Your task to perform on an android device: Open internet settings Image 0: 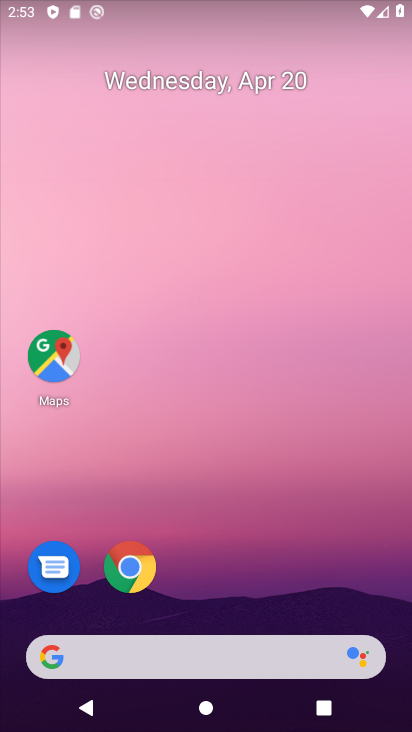
Step 0: drag from (268, 338) to (362, 2)
Your task to perform on an android device: Open internet settings Image 1: 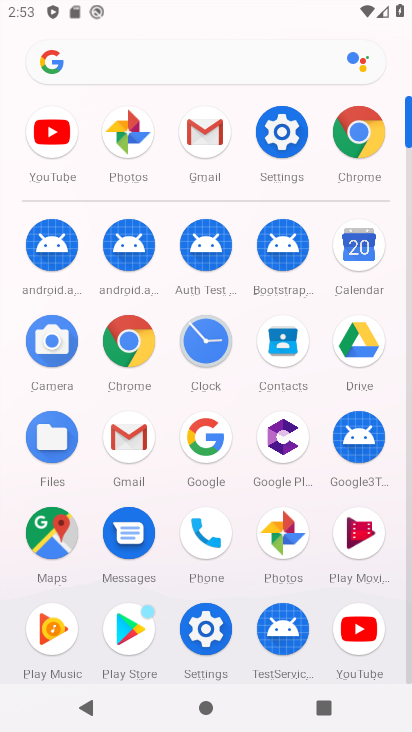
Step 1: click (284, 137)
Your task to perform on an android device: Open internet settings Image 2: 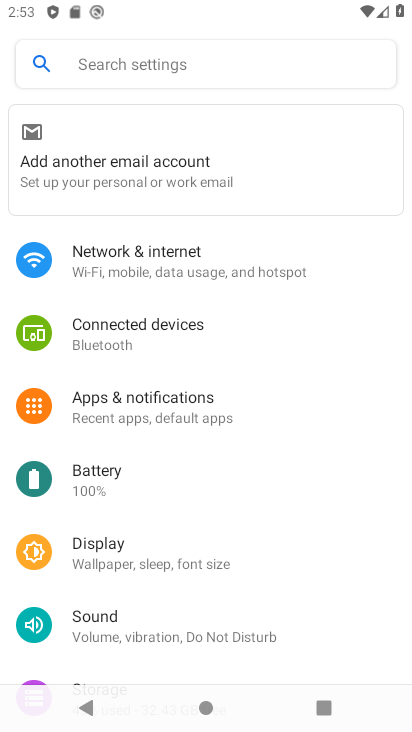
Step 2: click (197, 268)
Your task to perform on an android device: Open internet settings Image 3: 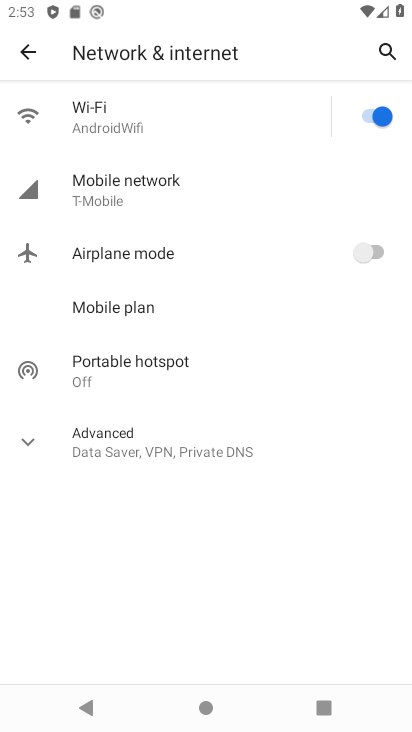
Step 3: task complete